Your task to perform on an android device: Go to Google Image 0: 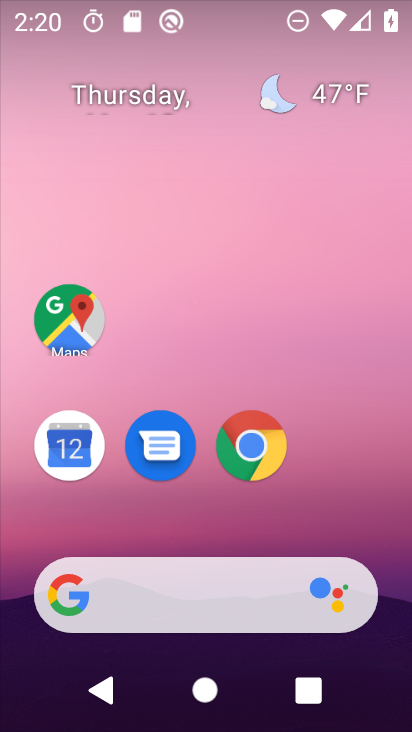
Step 0: drag from (198, 522) to (271, 157)
Your task to perform on an android device: Go to Google Image 1: 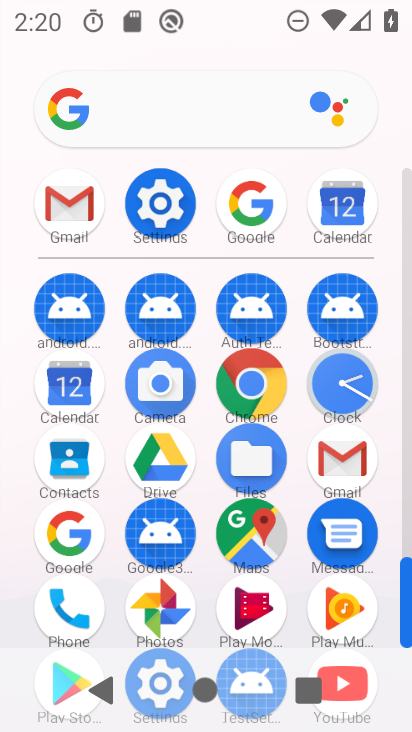
Step 1: click (236, 197)
Your task to perform on an android device: Go to Google Image 2: 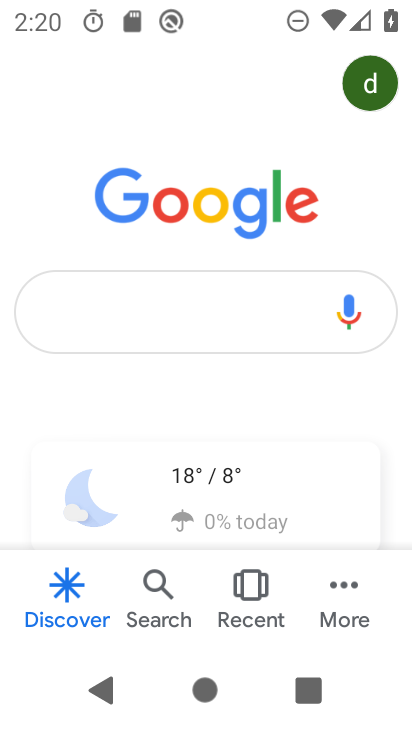
Step 2: task complete